Your task to perform on an android device: Do I have any events tomorrow? Image 0: 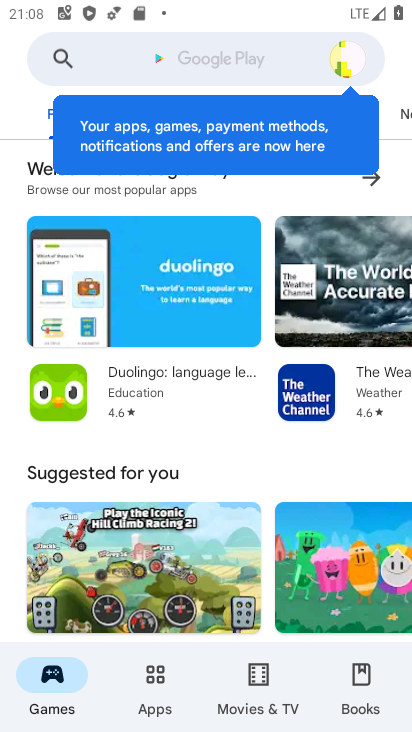
Step 0: press back button
Your task to perform on an android device: Do I have any events tomorrow? Image 1: 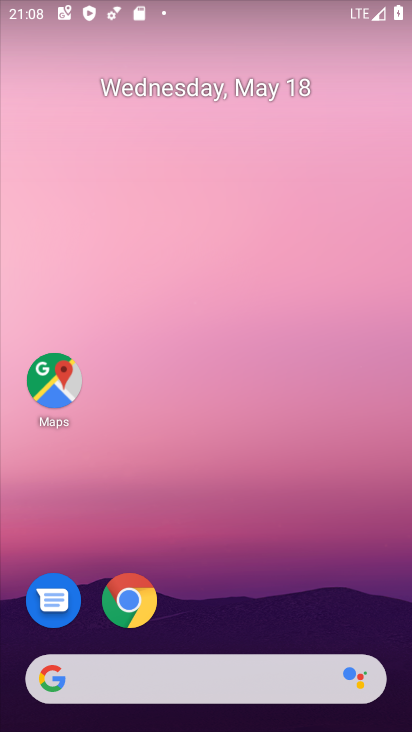
Step 1: click (187, 685)
Your task to perform on an android device: Do I have any events tomorrow? Image 2: 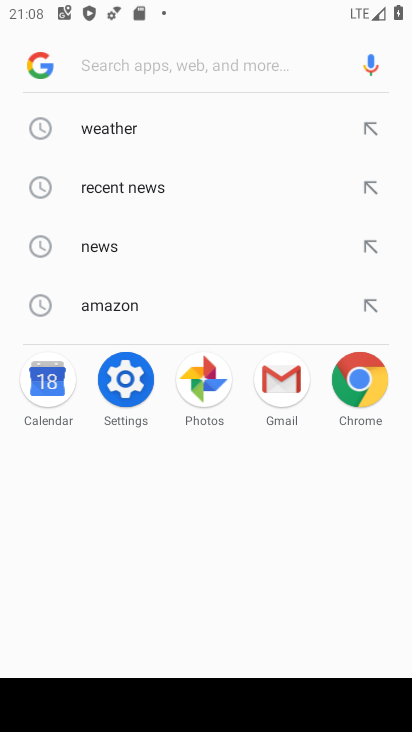
Step 2: press back button
Your task to perform on an android device: Do I have any events tomorrow? Image 3: 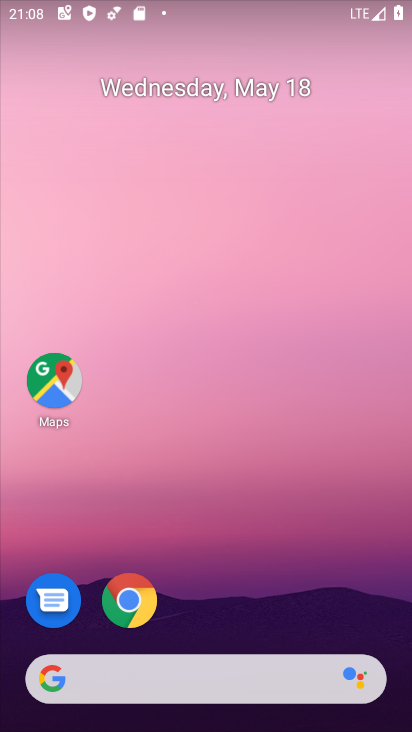
Step 3: drag from (168, 602) to (339, 3)
Your task to perform on an android device: Do I have any events tomorrow? Image 4: 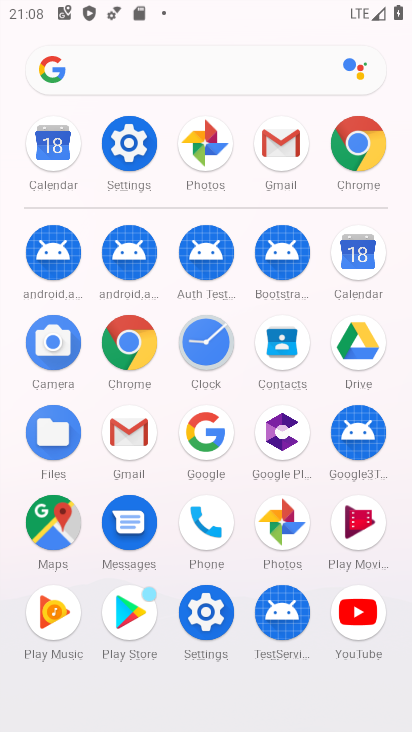
Step 4: click (379, 248)
Your task to perform on an android device: Do I have any events tomorrow? Image 5: 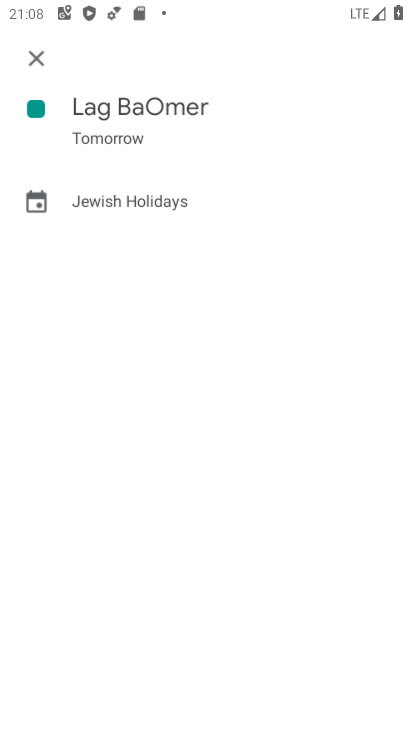
Step 5: click (25, 47)
Your task to perform on an android device: Do I have any events tomorrow? Image 6: 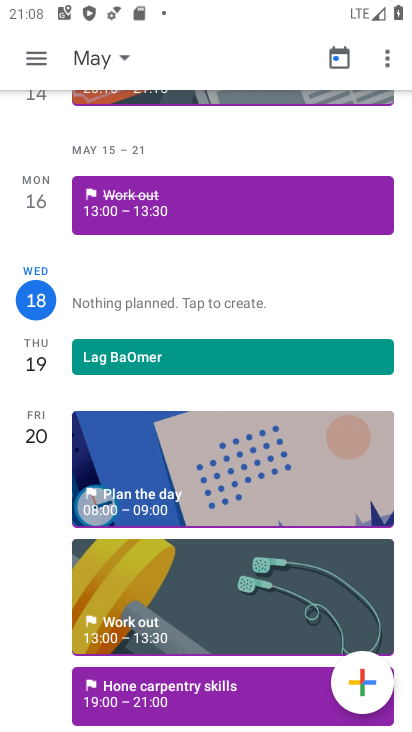
Step 6: click (152, 457)
Your task to perform on an android device: Do I have any events tomorrow? Image 7: 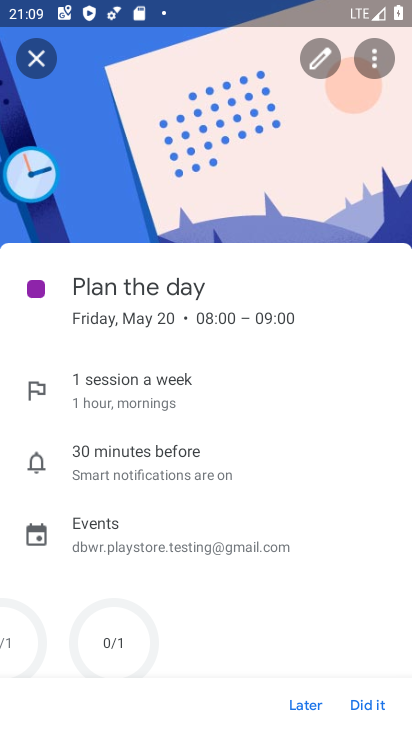
Step 7: click (305, 692)
Your task to perform on an android device: Do I have any events tomorrow? Image 8: 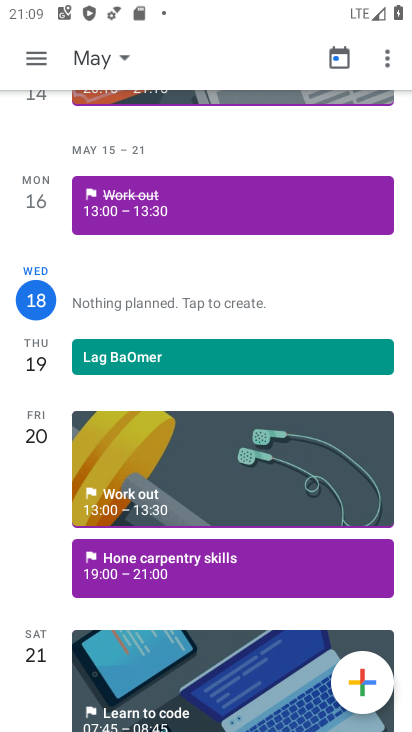
Step 8: task complete